Your task to perform on an android device: empty trash in google photos Image 0: 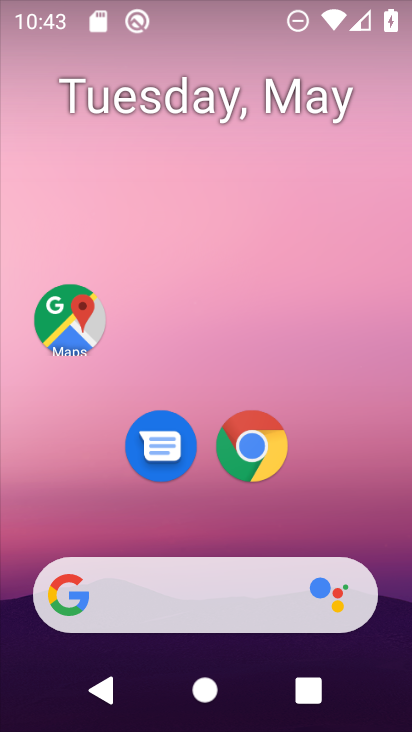
Step 0: drag from (201, 523) to (289, 47)
Your task to perform on an android device: empty trash in google photos Image 1: 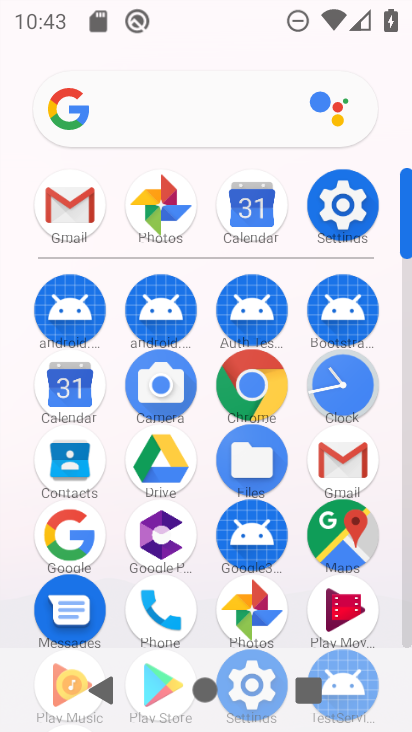
Step 1: click (250, 596)
Your task to perform on an android device: empty trash in google photos Image 2: 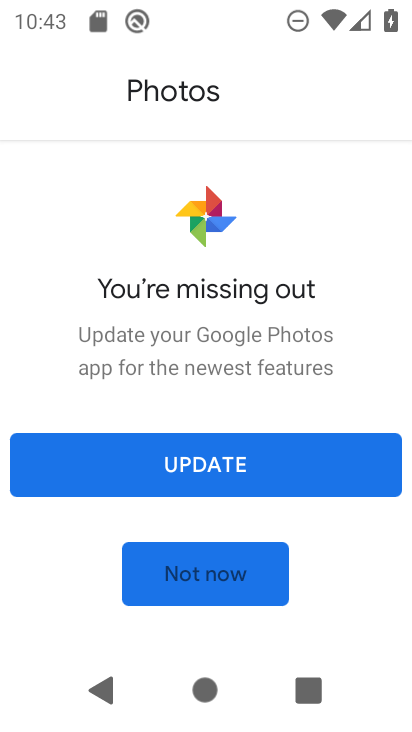
Step 2: click (215, 578)
Your task to perform on an android device: empty trash in google photos Image 3: 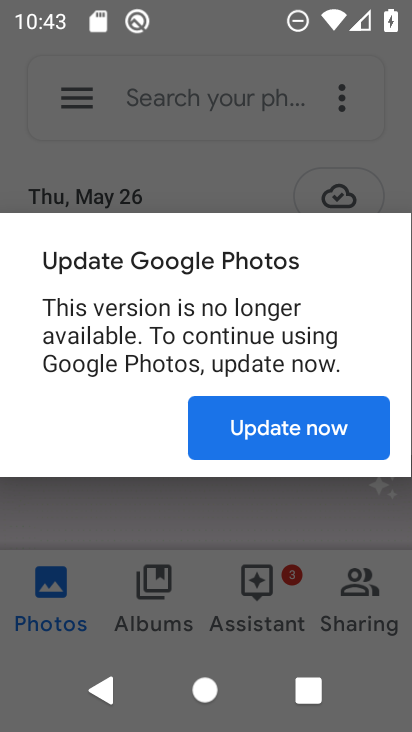
Step 3: click (284, 431)
Your task to perform on an android device: empty trash in google photos Image 4: 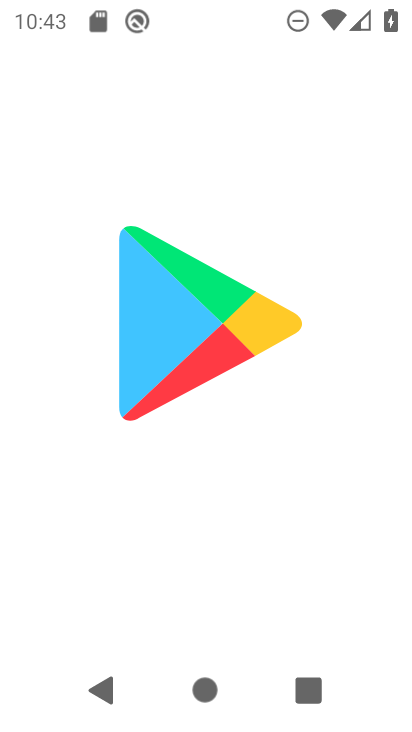
Step 4: drag from (245, 438) to (292, 30)
Your task to perform on an android device: empty trash in google photos Image 5: 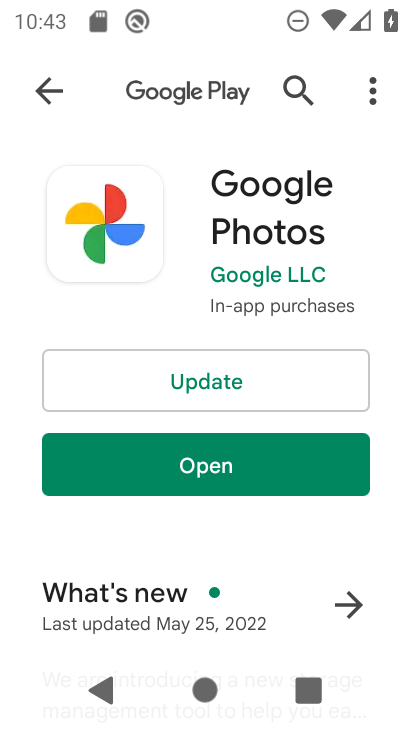
Step 5: click (259, 457)
Your task to perform on an android device: empty trash in google photos Image 6: 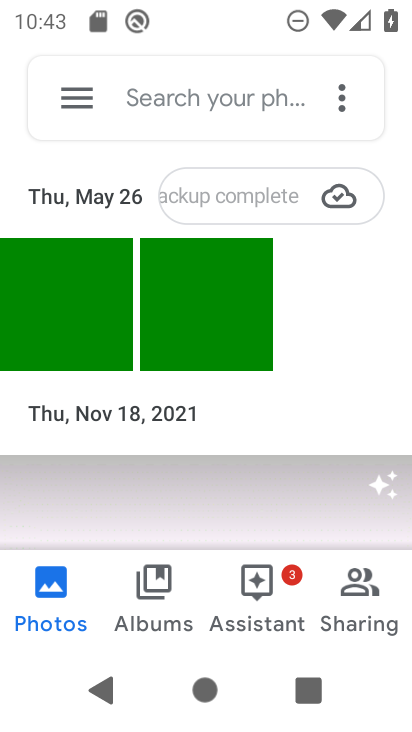
Step 6: click (75, 113)
Your task to perform on an android device: empty trash in google photos Image 7: 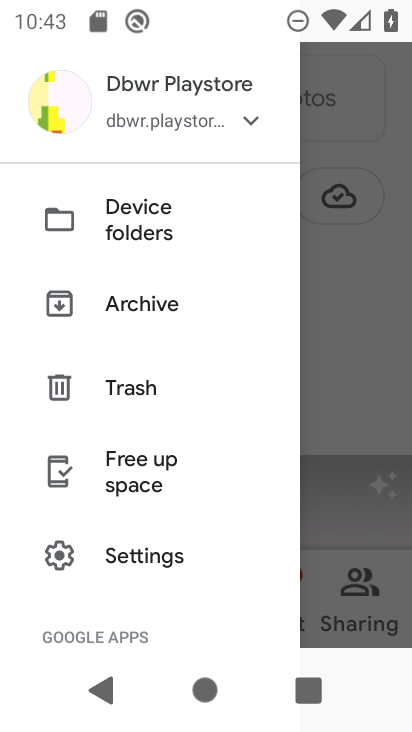
Step 7: click (139, 396)
Your task to perform on an android device: empty trash in google photos Image 8: 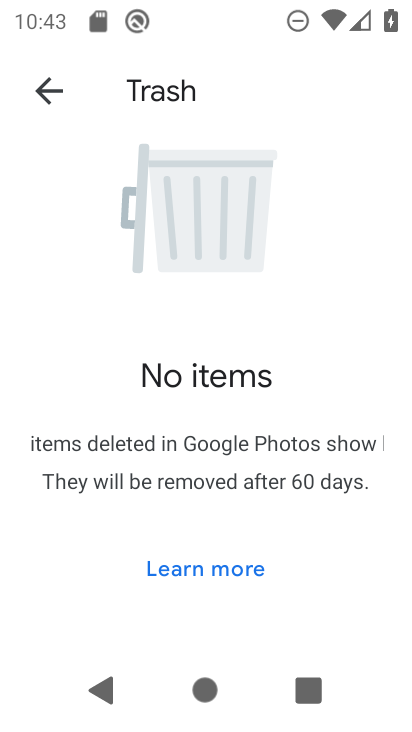
Step 8: task complete